Your task to perform on an android device: create a new album in the google photos Image 0: 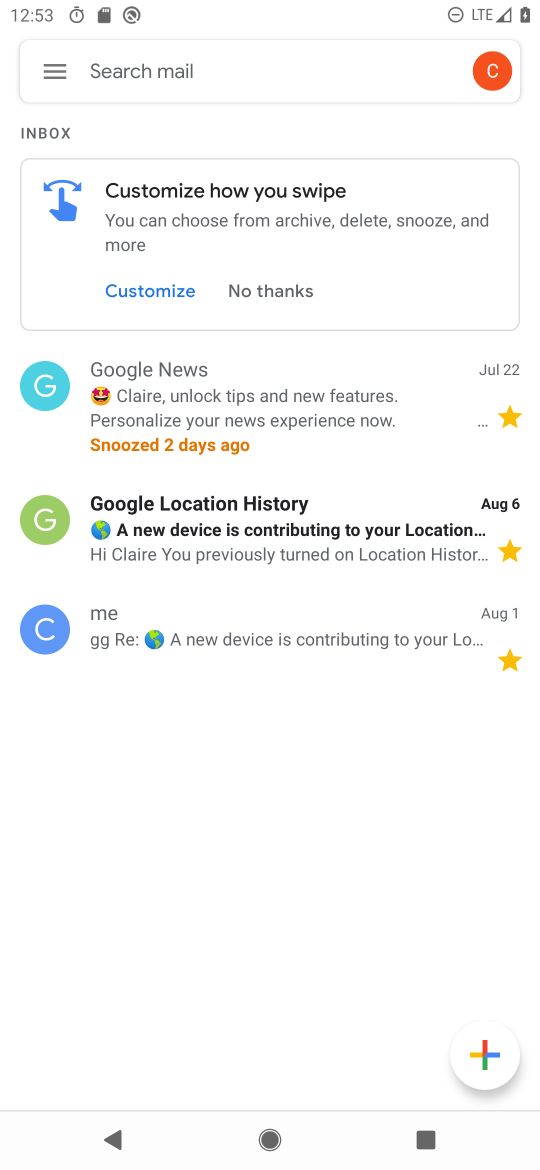
Step 0: press home button
Your task to perform on an android device: create a new album in the google photos Image 1: 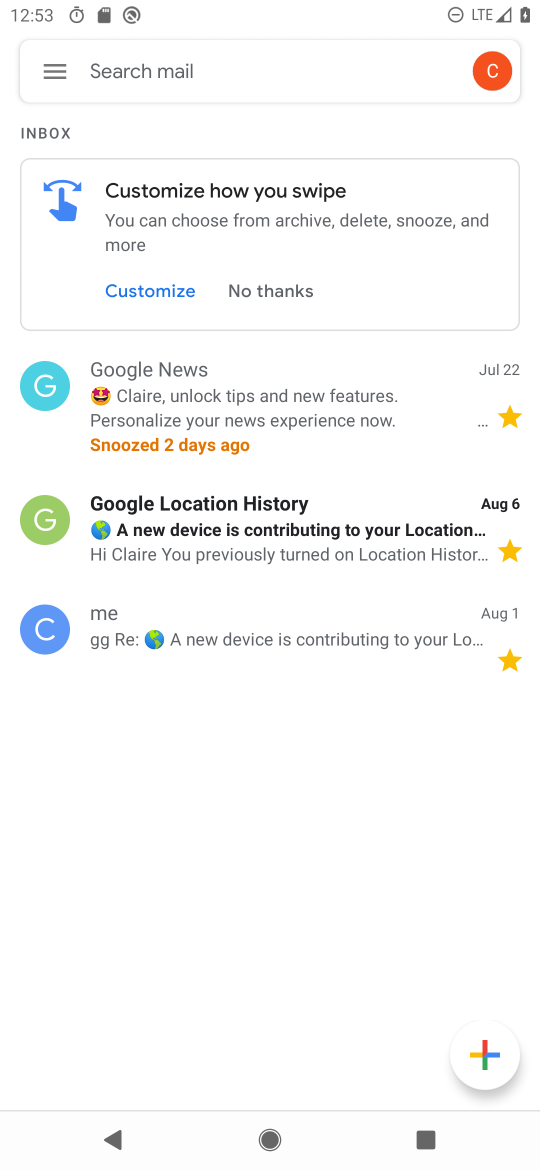
Step 1: press home button
Your task to perform on an android device: create a new album in the google photos Image 2: 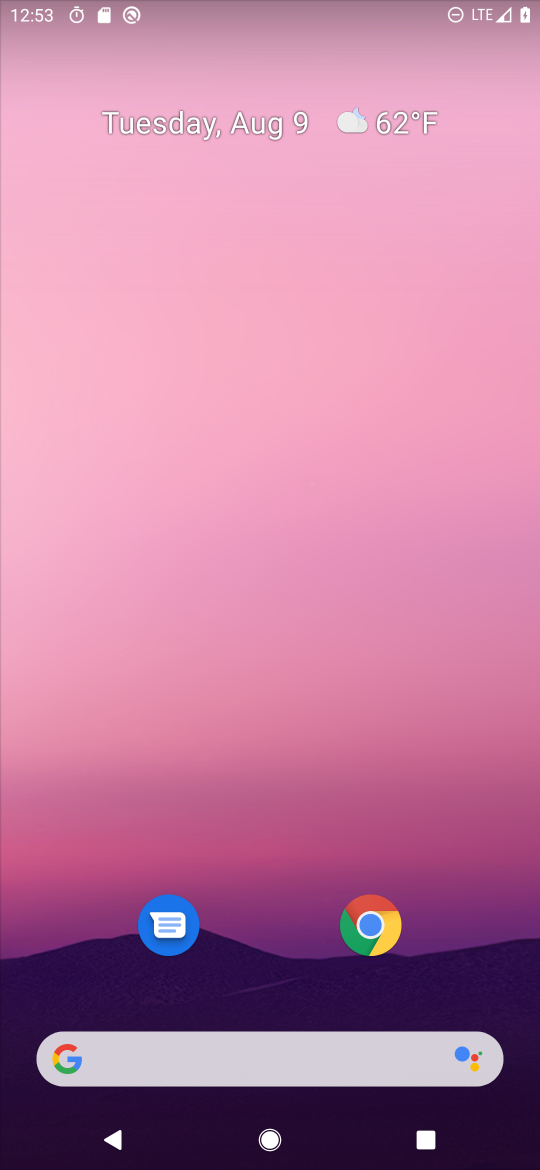
Step 2: drag from (262, 860) to (304, 198)
Your task to perform on an android device: create a new album in the google photos Image 3: 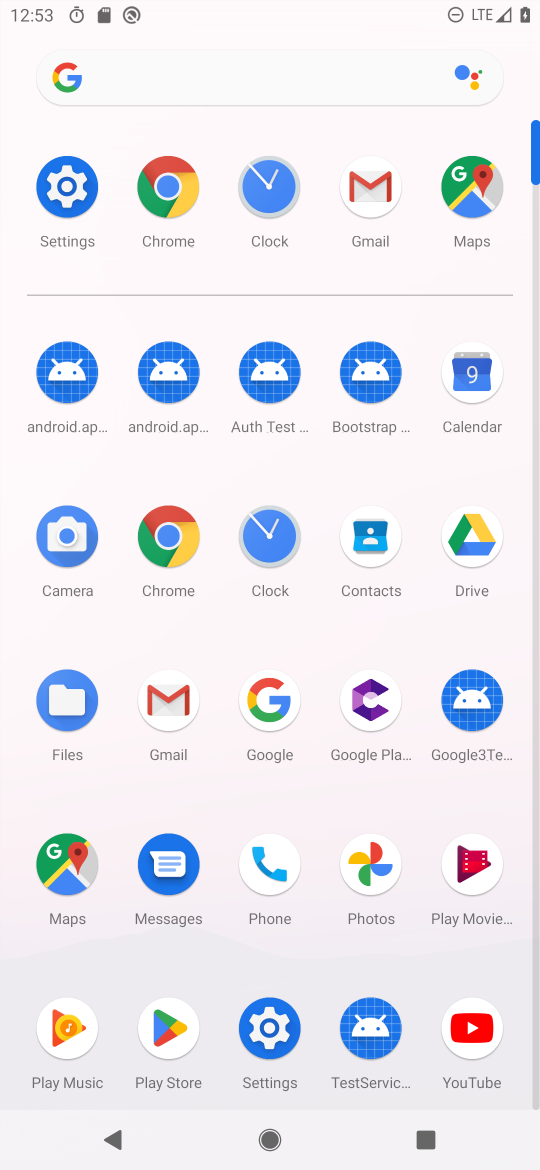
Step 3: click (379, 859)
Your task to perform on an android device: create a new album in the google photos Image 4: 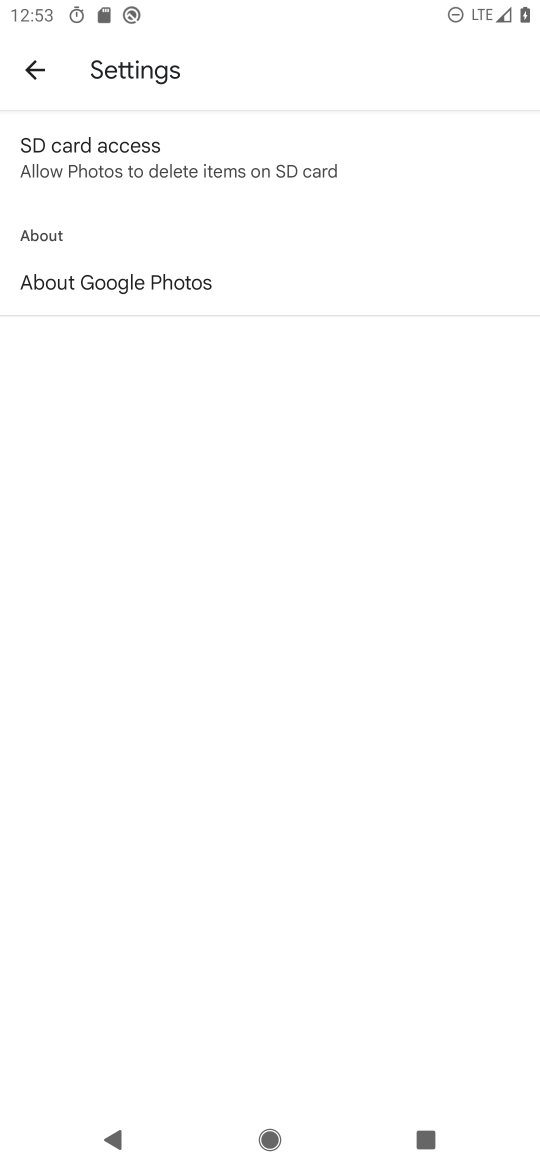
Step 4: press back button
Your task to perform on an android device: create a new album in the google photos Image 5: 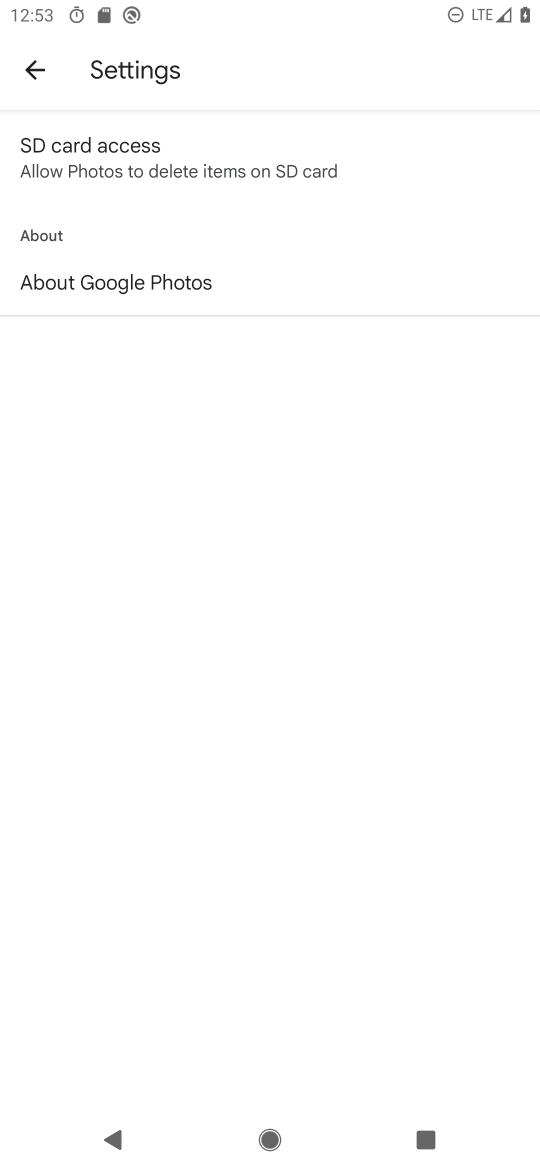
Step 5: press back button
Your task to perform on an android device: create a new album in the google photos Image 6: 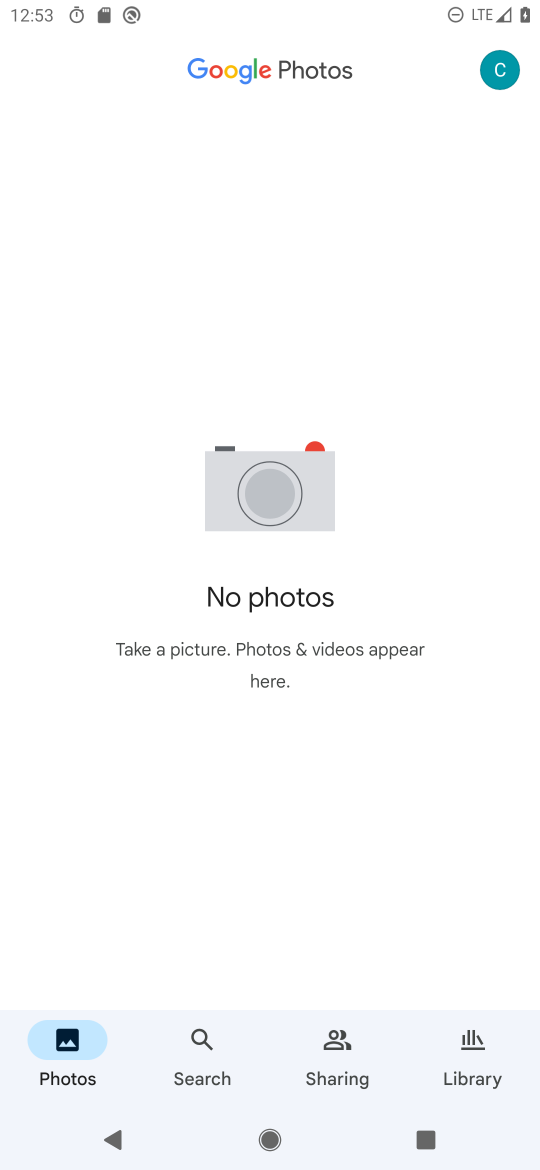
Step 6: click (455, 1017)
Your task to perform on an android device: create a new album in the google photos Image 7: 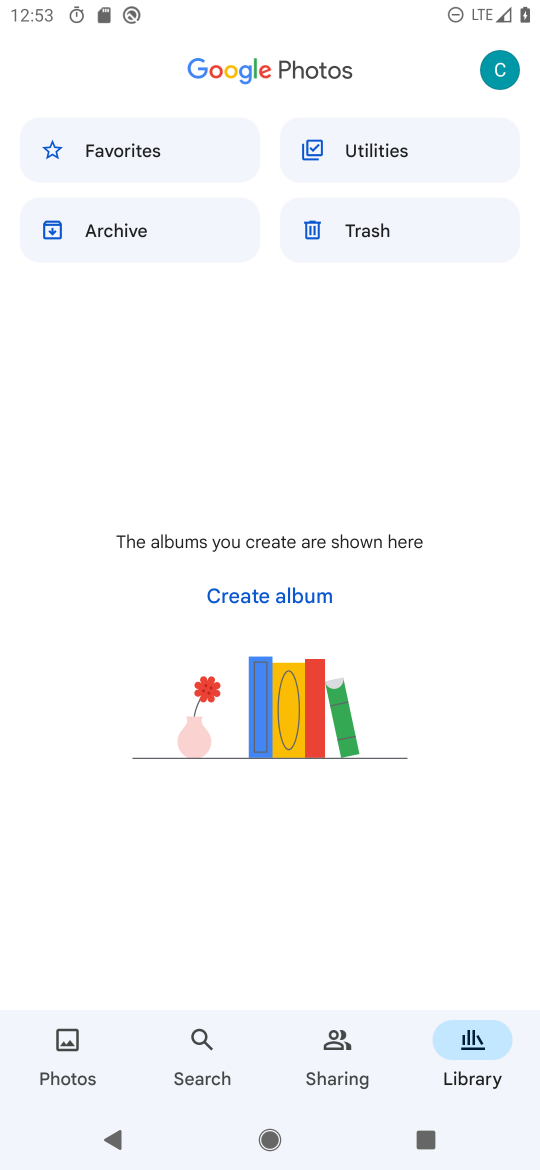
Step 7: click (288, 584)
Your task to perform on an android device: create a new album in the google photos Image 8: 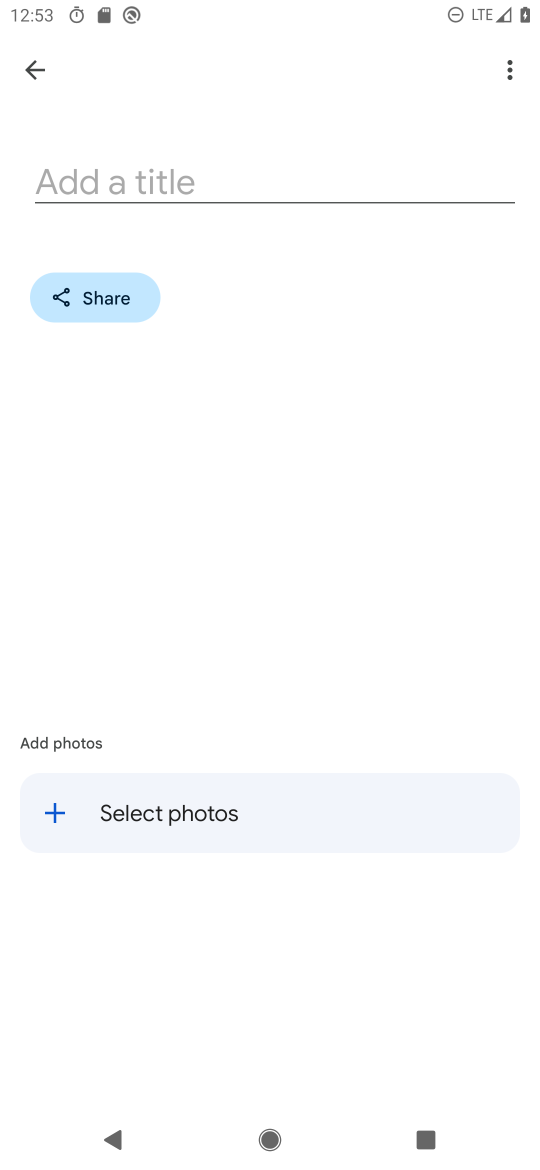
Step 8: click (358, 167)
Your task to perform on an android device: create a new album in the google photos Image 9: 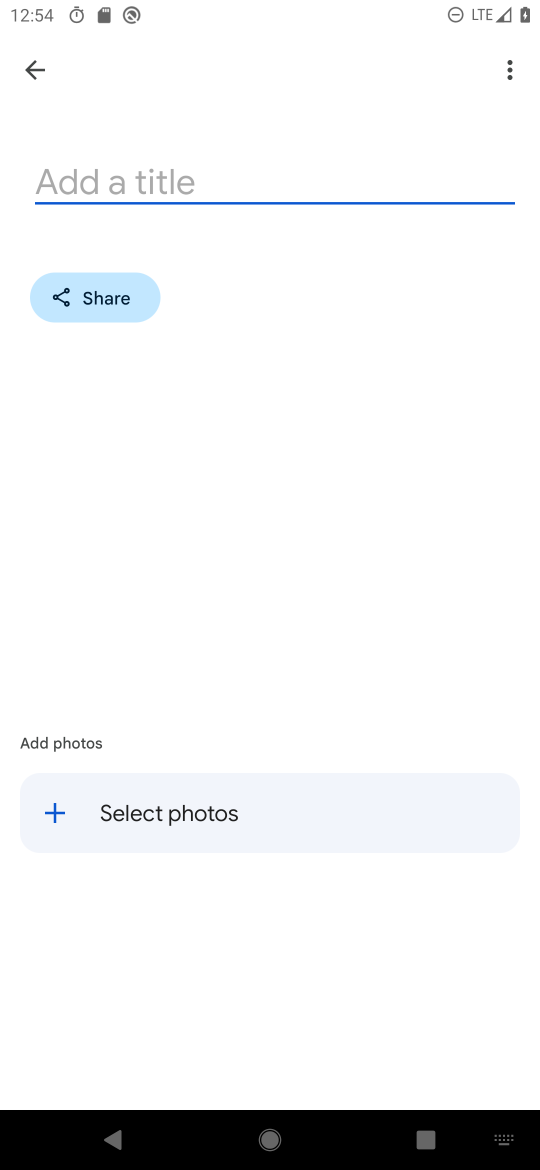
Step 9: type "tuje hi bulaye"
Your task to perform on an android device: create a new album in the google photos Image 10: 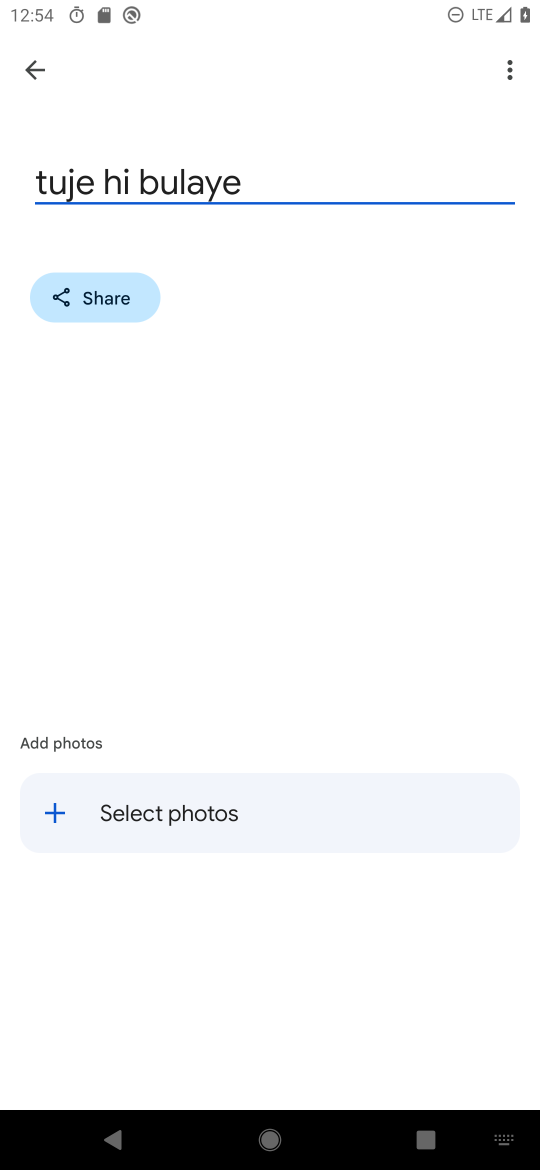
Step 10: press enter
Your task to perform on an android device: create a new album in the google photos Image 11: 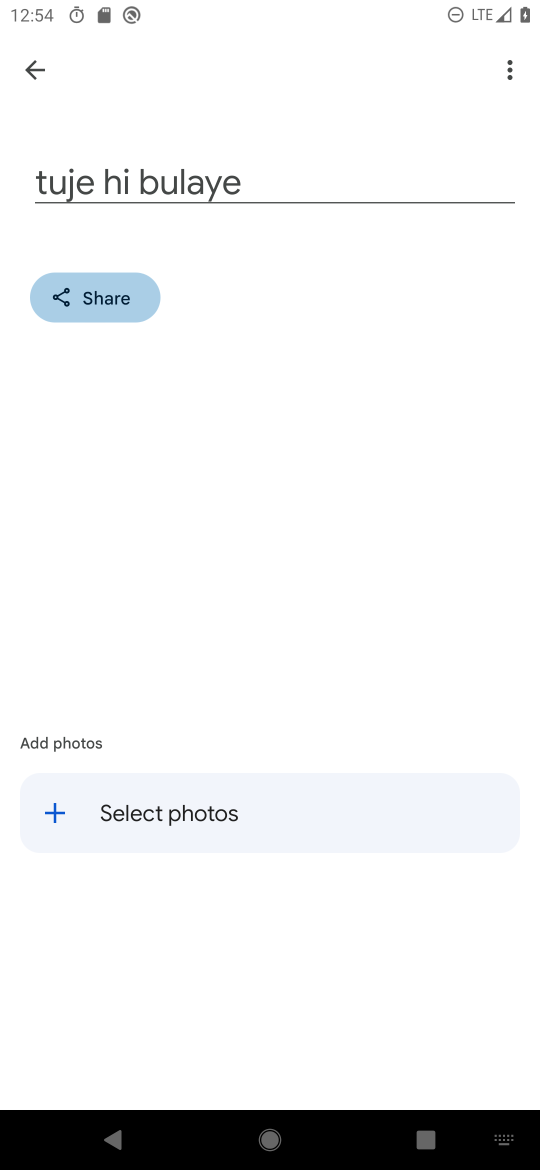
Step 11: task complete